Your task to perform on an android device: uninstall "Fetch Rewards" Image 0: 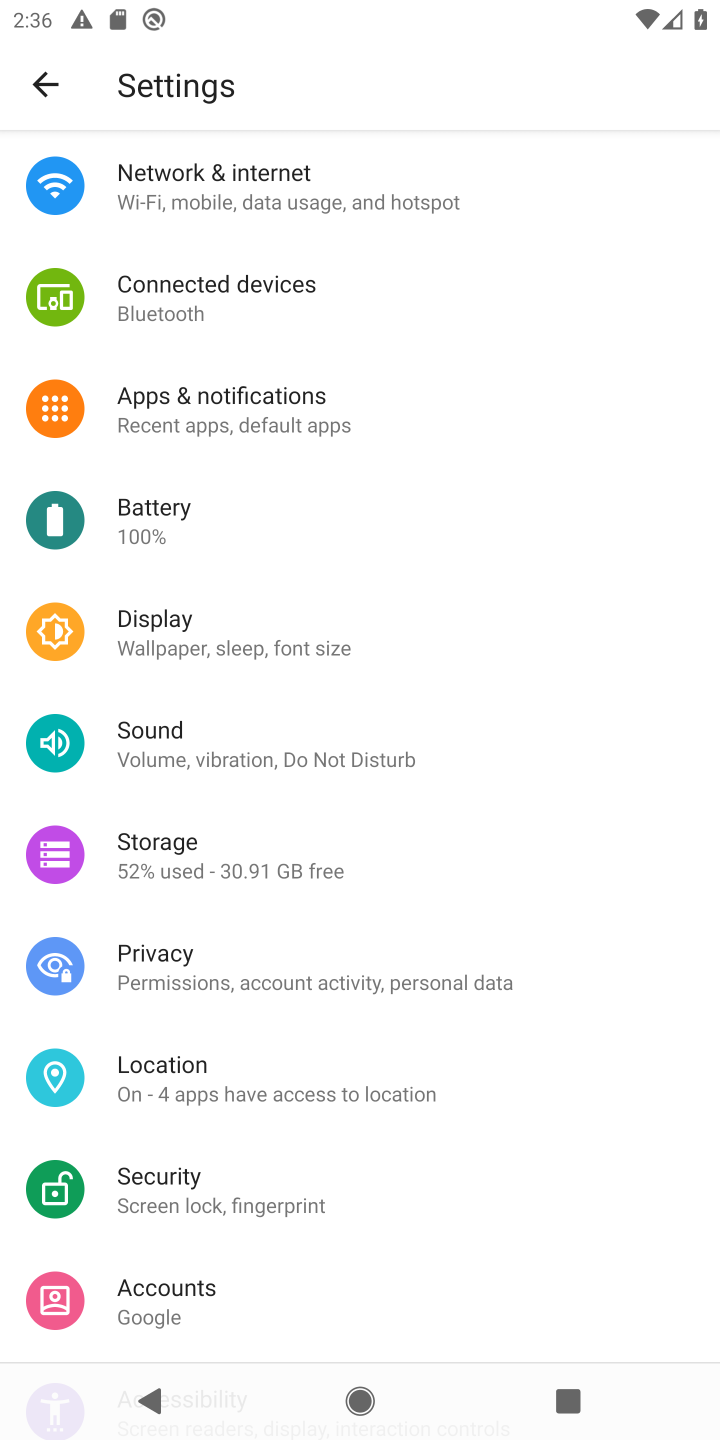
Step 0: press home button
Your task to perform on an android device: uninstall "Fetch Rewards" Image 1: 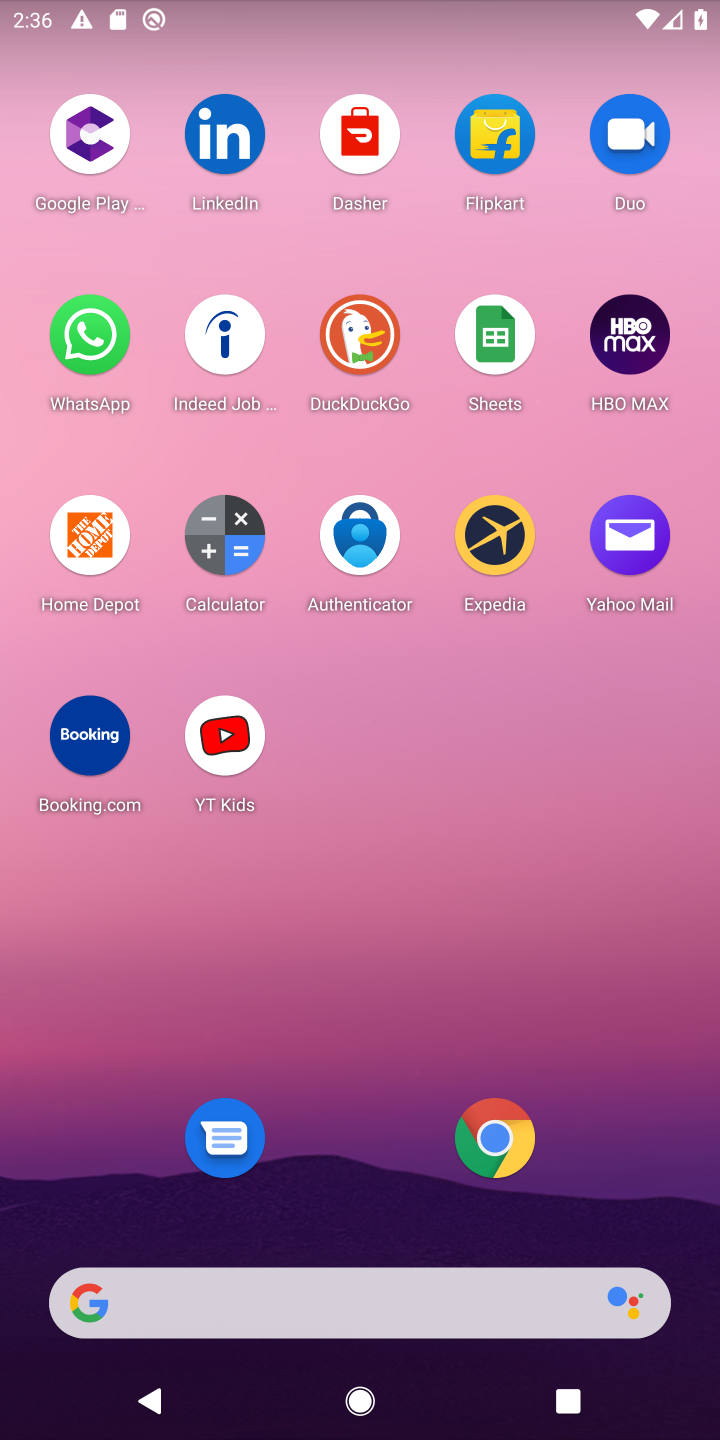
Step 1: drag from (342, 842) to (340, 240)
Your task to perform on an android device: uninstall "Fetch Rewards" Image 2: 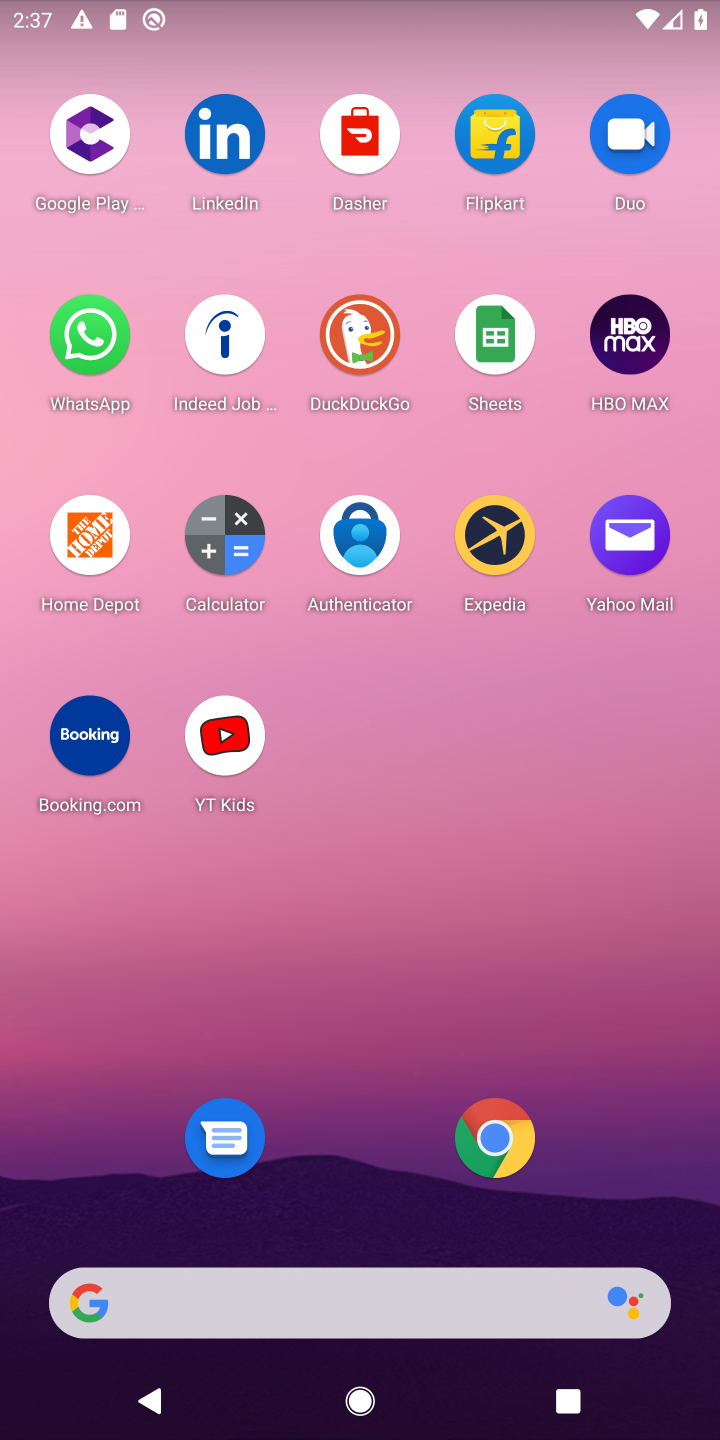
Step 2: drag from (362, 1135) to (392, 199)
Your task to perform on an android device: uninstall "Fetch Rewards" Image 3: 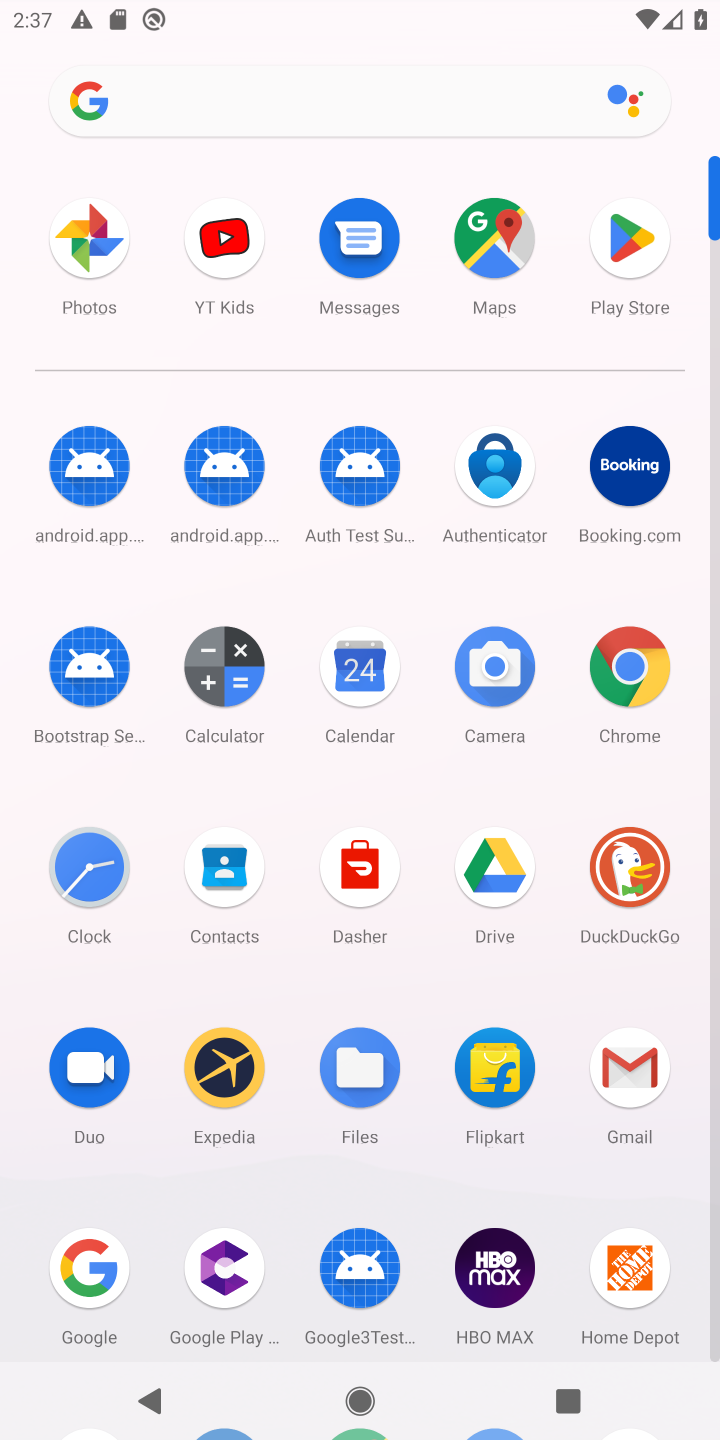
Step 3: click (631, 229)
Your task to perform on an android device: uninstall "Fetch Rewards" Image 4: 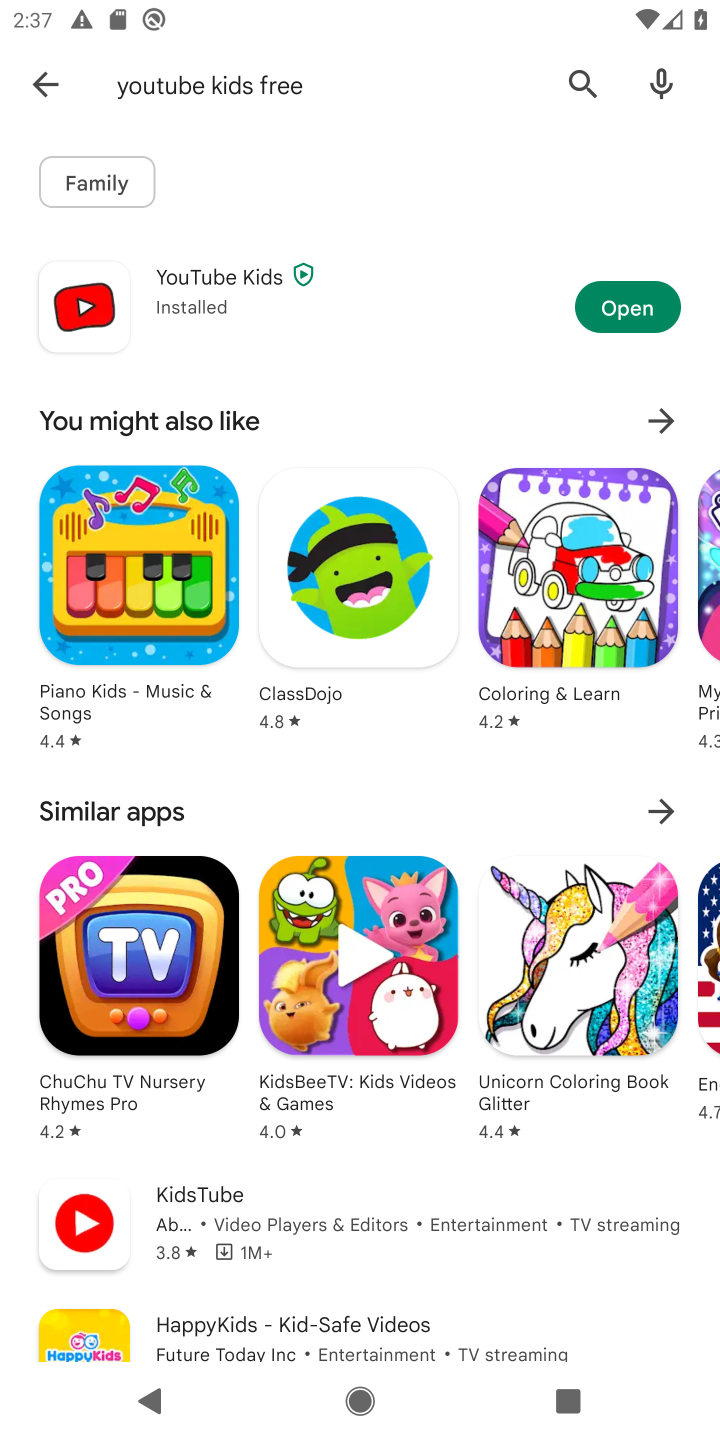
Step 4: click (578, 87)
Your task to perform on an android device: uninstall "Fetch Rewards" Image 5: 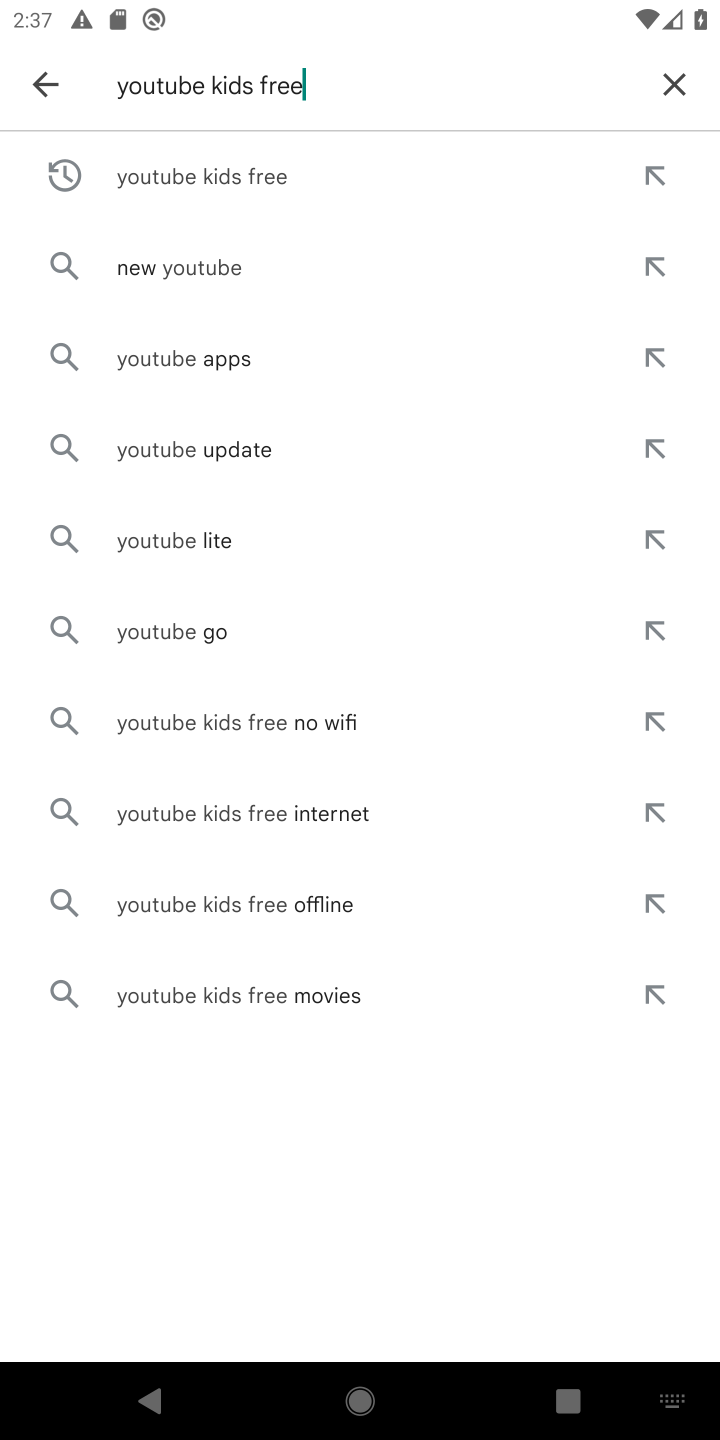
Step 5: click (681, 75)
Your task to perform on an android device: uninstall "Fetch Rewards" Image 6: 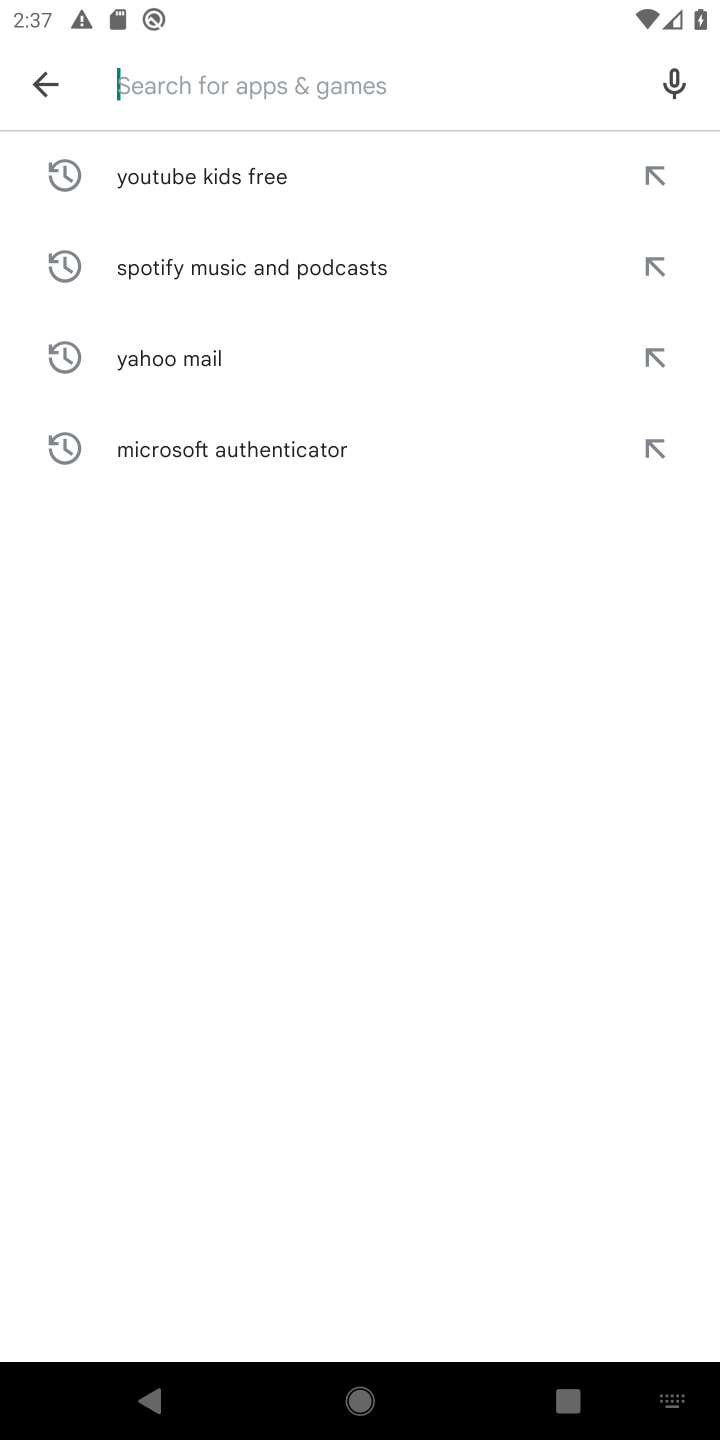
Step 6: type "Fetch Rewardds"
Your task to perform on an android device: uninstall "Fetch Rewards" Image 7: 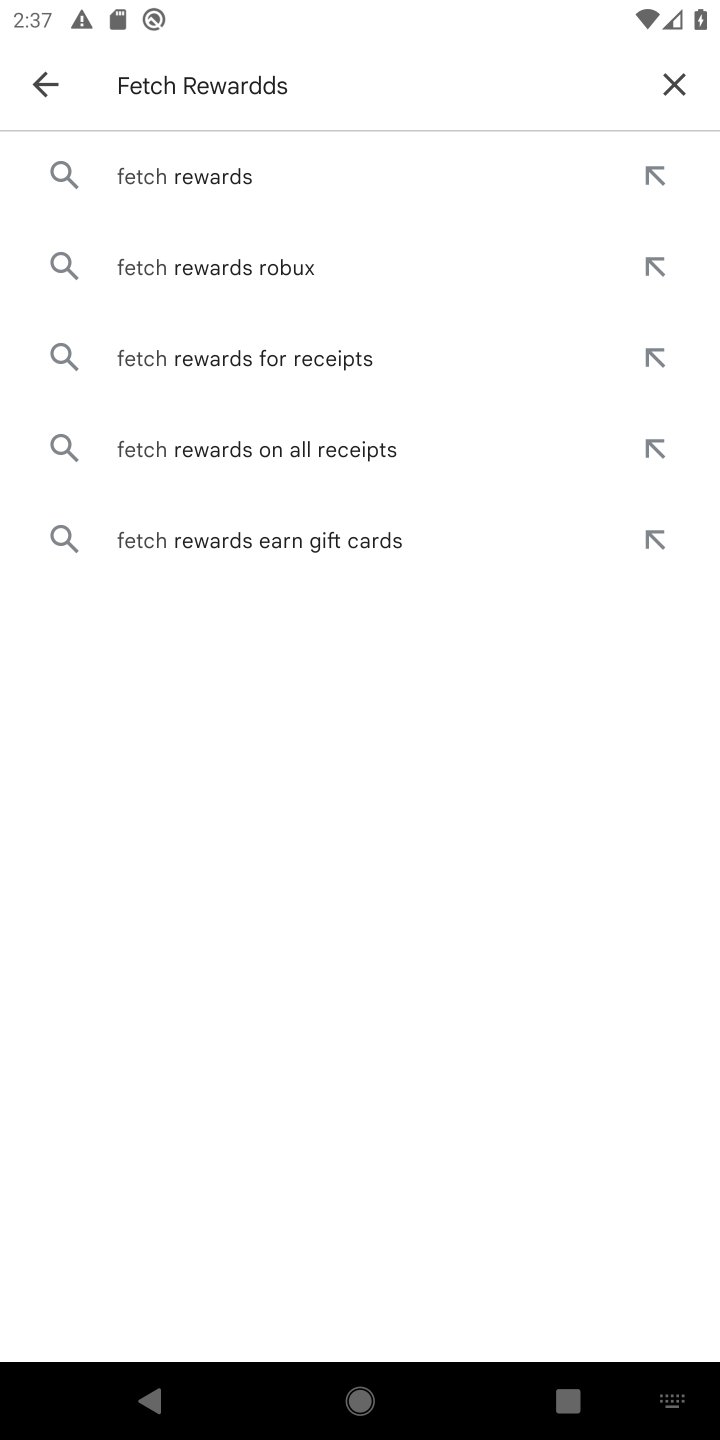
Step 7: click (230, 181)
Your task to perform on an android device: uninstall "Fetch Rewards" Image 8: 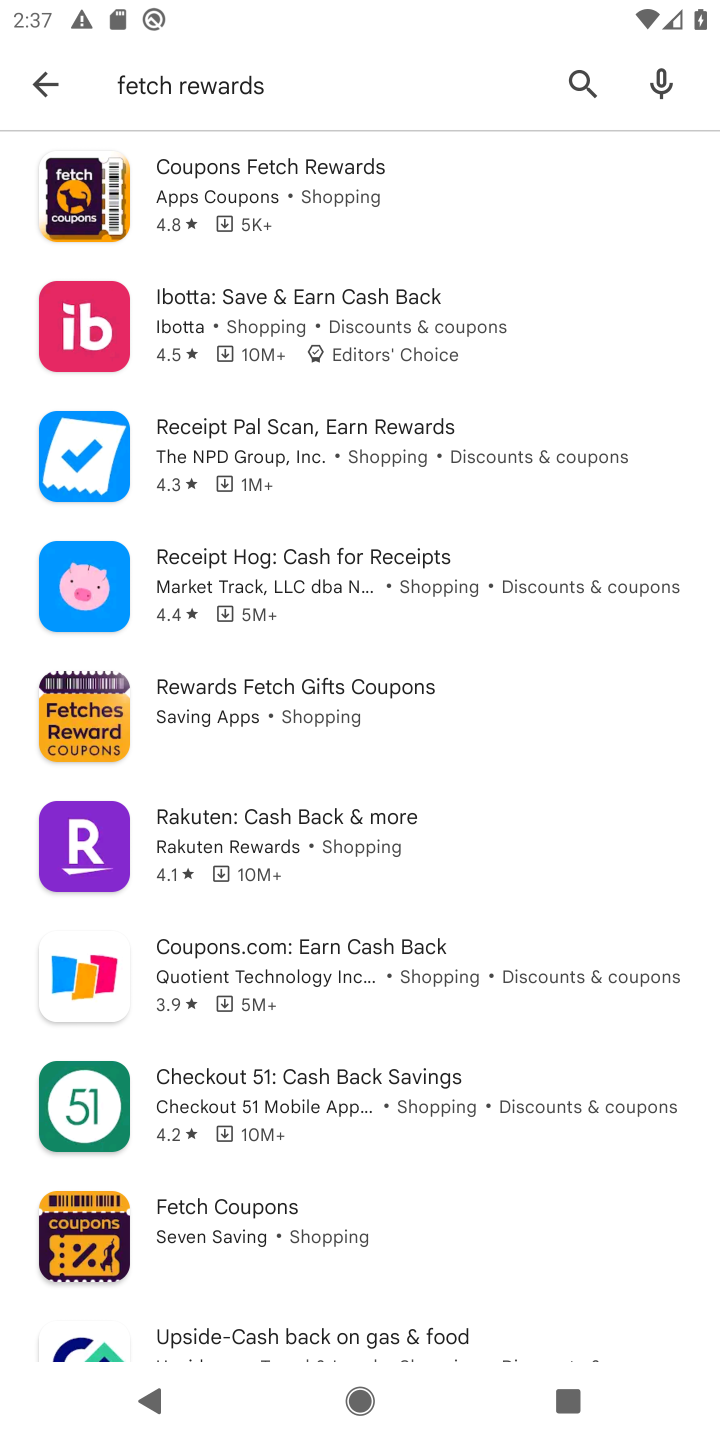
Step 8: task complete